Your task to perform on an android device: see sites visited before in the chrome app Image 0: 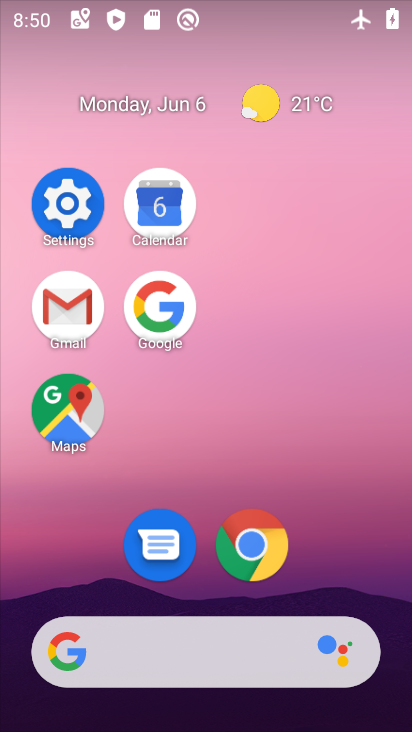
Step 0: click (256, 530)
Your task to perform on an android device: see sites visited before in the chrome app Image 1: 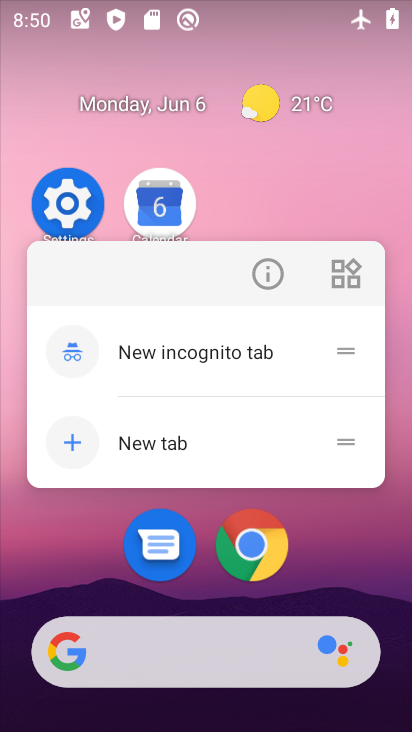
Step 1: click (257, 553)
Your task to perform on an android device: see sites visited before in the chrome app Image 2: 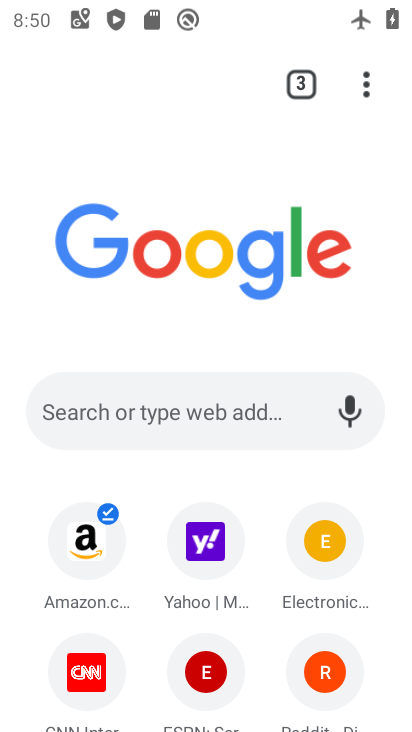
Step 2: click (372, 79)
Your task to perform on an android device: see sites visited before in the chrome app Image 3: 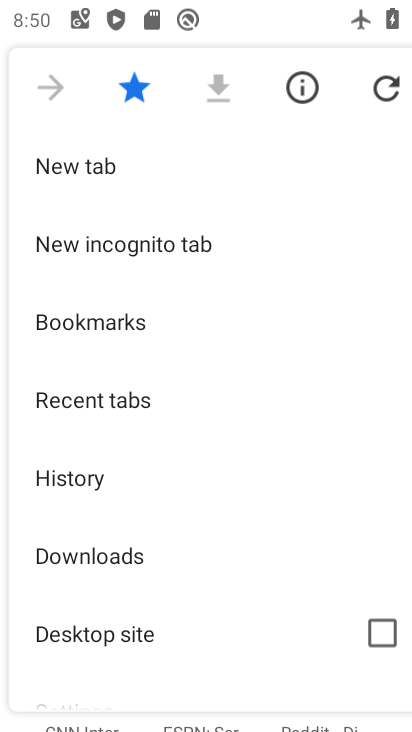
Step 3: click (235, 390)
Your task to perform on an android device: see sites visited before in the chrome app Image 4: 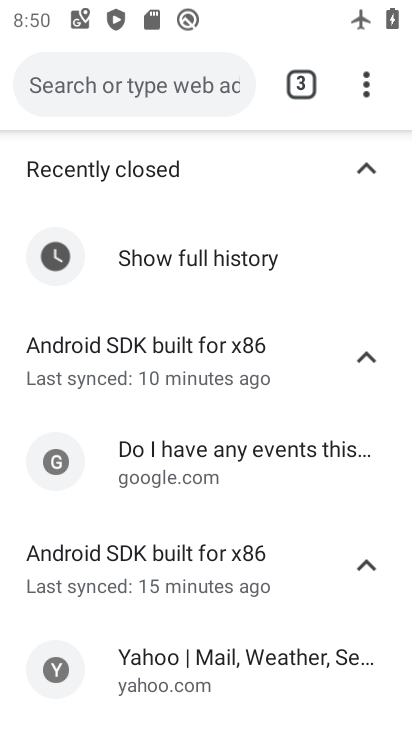
Step 4: task complete